Your task to perform on an android device: Show me popular videos on Youtube Image 0: 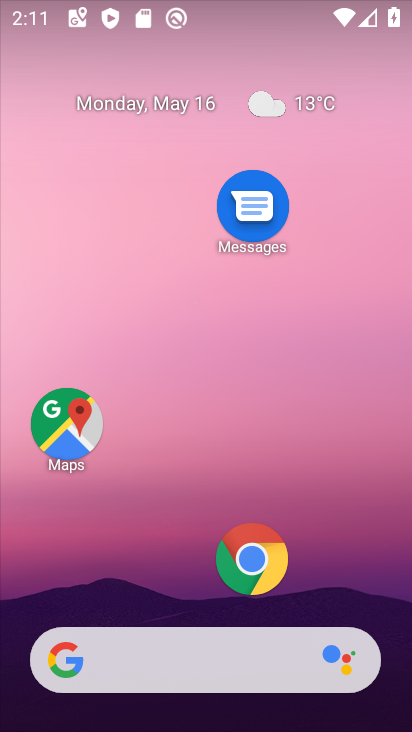
Step 0: drag from (170, 545) to (188, 254)
Your task to perform on an android device: Show me popular videos on Youtube Image 1: 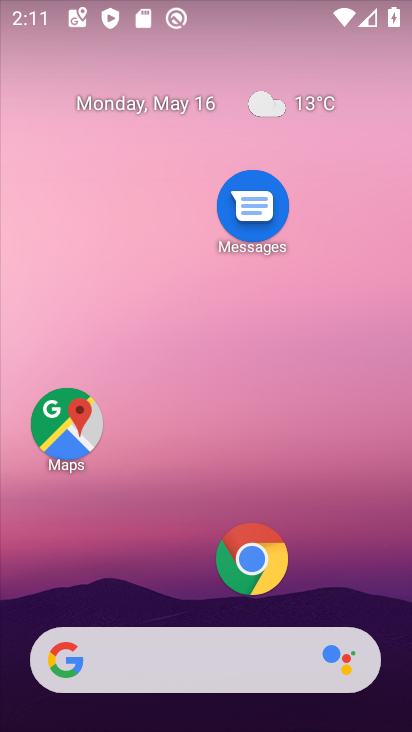
Step 1: drag from (113, 552) to (132, 117)
Your task to perform on an android device: Show me popular videos on Youtube Image 2: 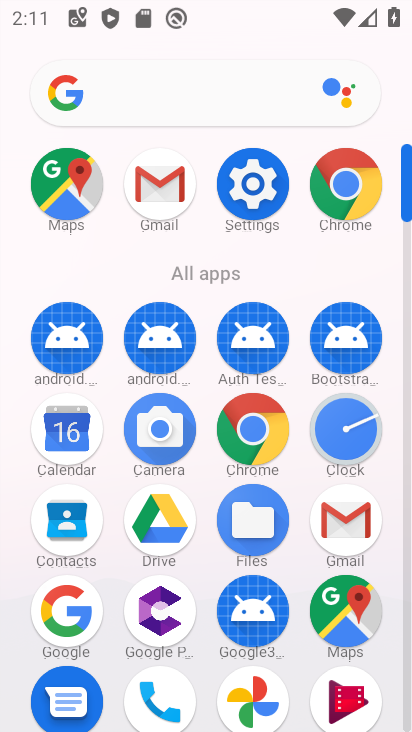
Step 2: drag from (209, 578) to (230, 274)
Your task to perform on an android device: Show me popular videos on Youtube Image 3: 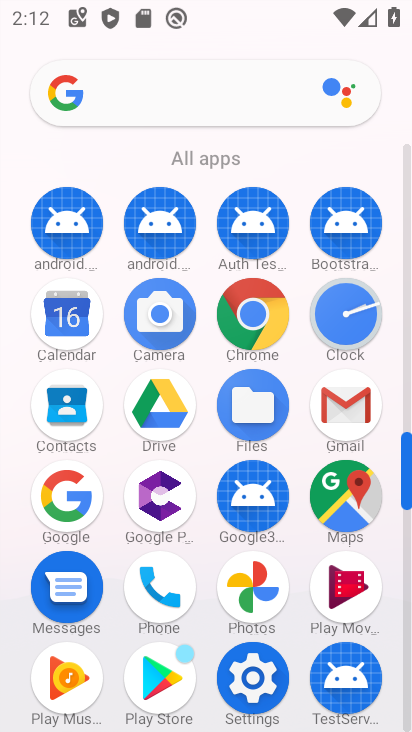
Step 3: drag from (208, 634) to (287, 300)
Your task to perform on an android device: Show me popular videos on Youtube Image 4: 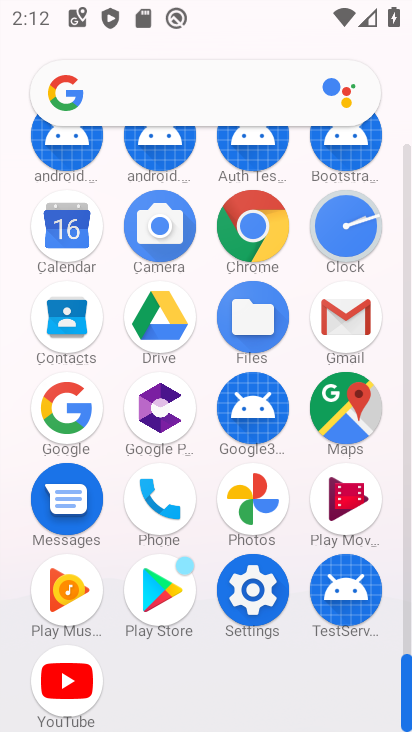
Step 4: click (60, 682)
Your task to perform on an android device: Show me popular videos on Youtube Image 5: 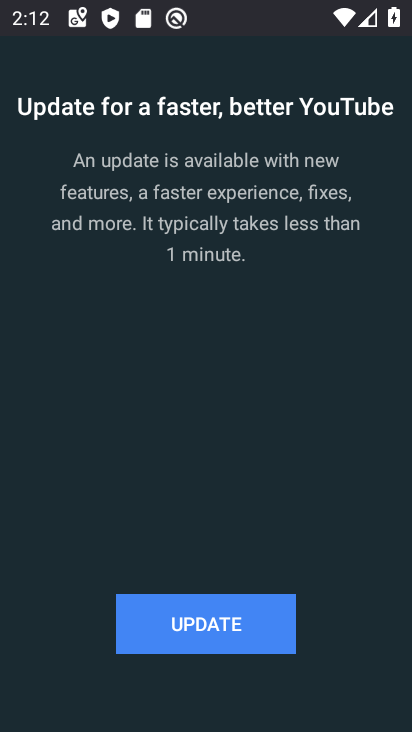
Step 5: click (221, 636)
Your task to perform on an android device: Show me popular videos on Youtube Image 6: 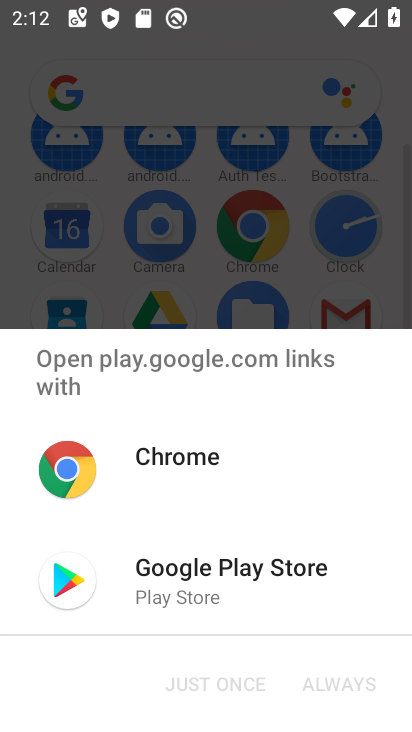
Step 6: click (226, 579)
Your task to perform on an android device: Show me popular videos on Youtube Image 7: 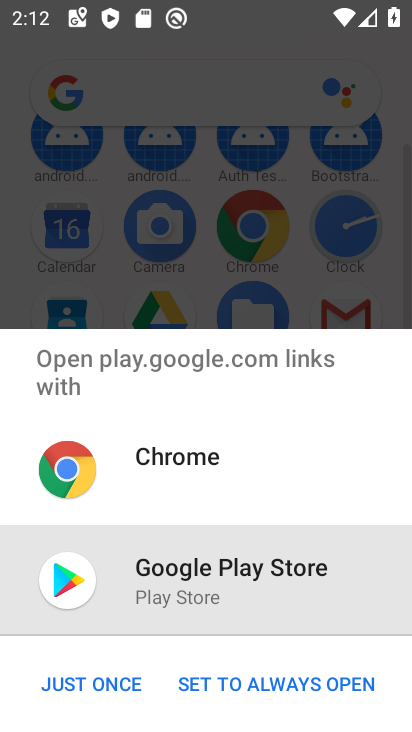
Step 7: click (102, 675)
Your task to perform on an android device: Show me popular videos on Youtube Image 8: 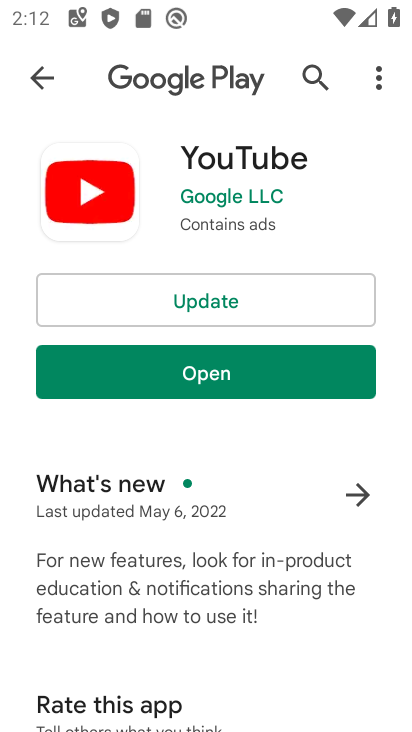
Step 8: click (268, 309)
Your task to perform on an android device: Show me popular videos on Youtube Image 9: 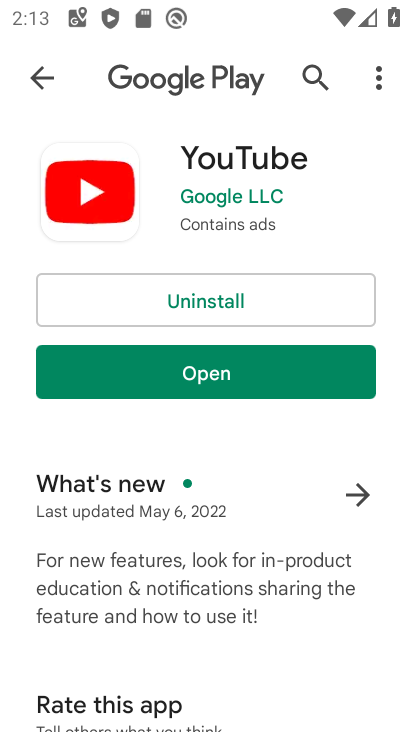
Step 9: click (227, 377)
Your task to perform on an android device: Show me popular videos on Youtube Image 10: 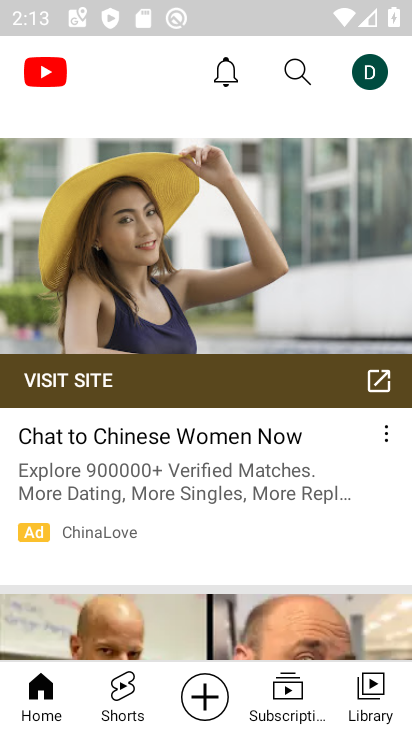
Step 10: click (287, 61)
Your task to perform on an android device: Show me popular videos on Youtube Image 11: 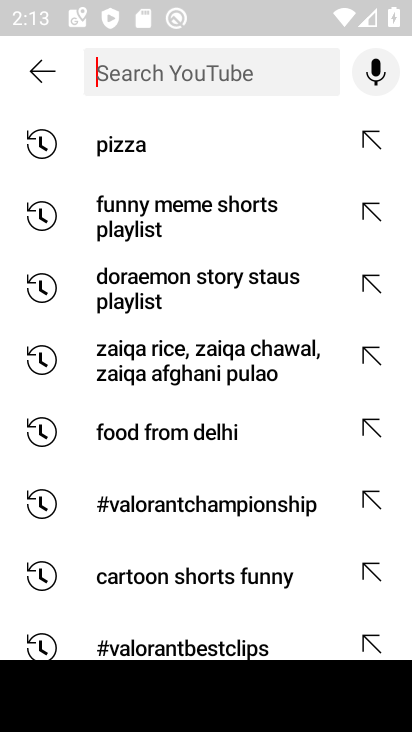
Step 11: type "popular videos"
Your task to perform on an android device: Show me popular videos on Youtube Image 12: 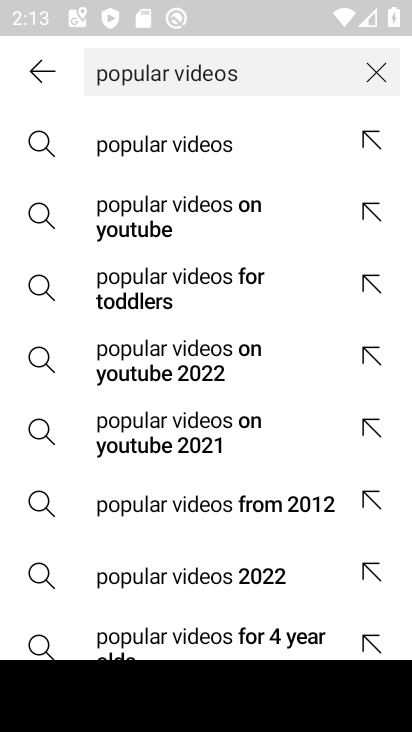
Step 12: click (211, 139)
Your task to perform on an android device: Show me popular videos on Youtube Image 13: 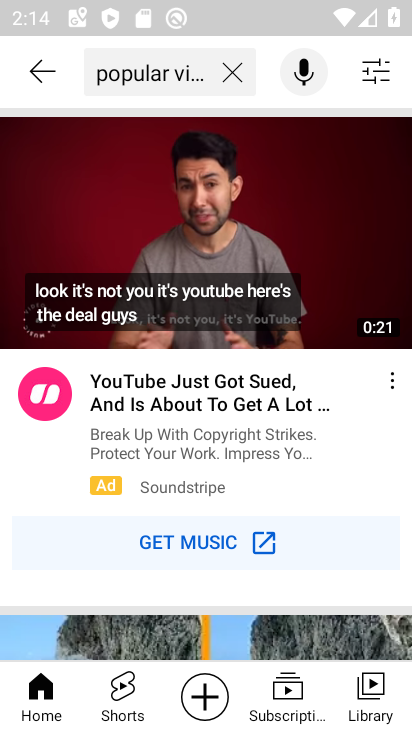
Step 13: task complete